Your task to perform on an android device: open sync settings in chrome Image 0: 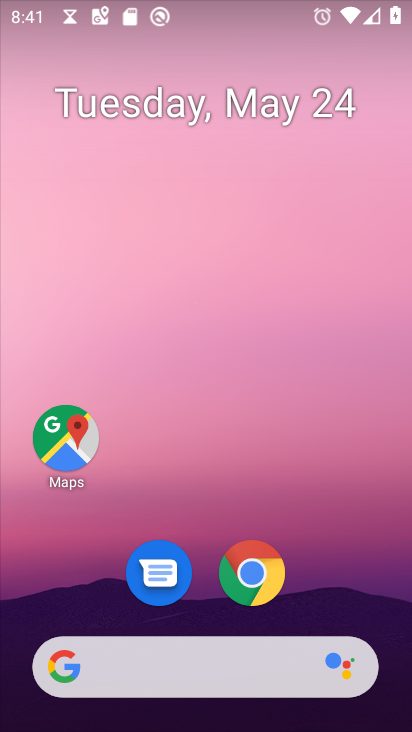
Step 0: drag from (292, 571) to (302, 369)
Your task to perform on an android device: open sync settings in chrome Image 1: 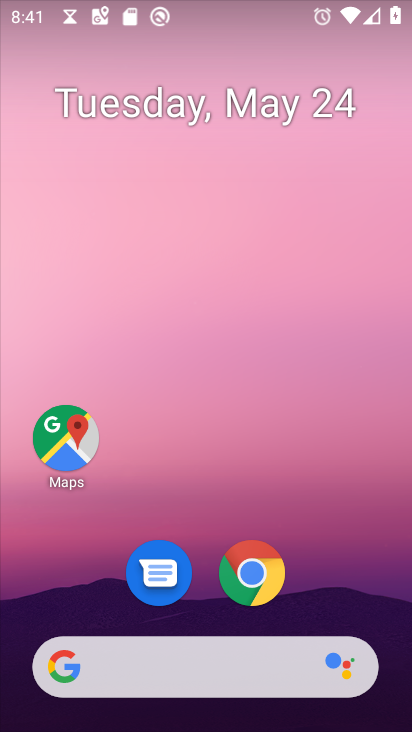
Step 1: drag from (356, 601) to (370, 516)
Your task to perform on an android device: open sync settings in chrome Image 2: 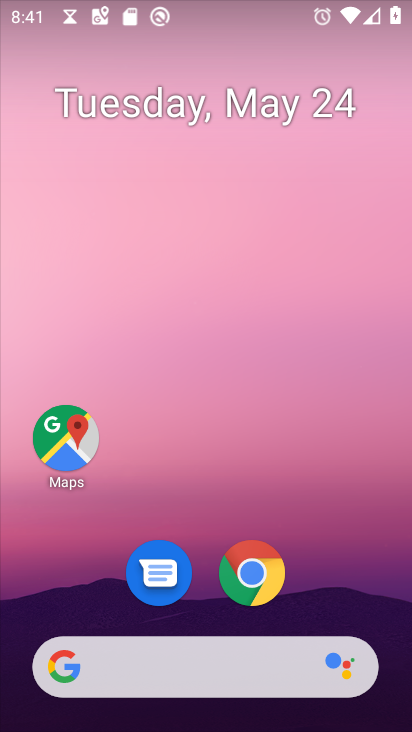
Step 2: drag from (318, 576) to (361, 122)
Your task to perform on an android device: open sync settings in chrome Image 3: 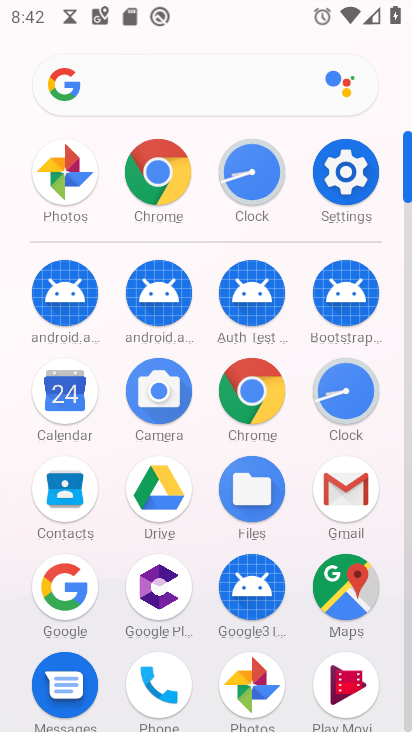
Step 3: click (171, 175)
Your task to perform on an android device: open sync settings in chrome Image 4: 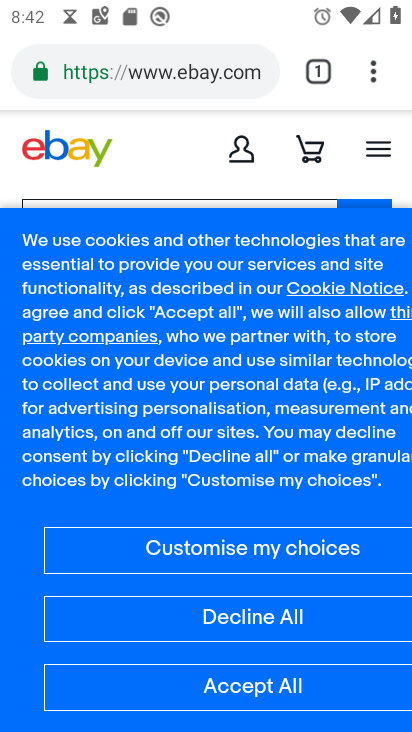
Step 4: drag from (369, 85) to (119, 567)
Your task to perform on an android device: open sync settings in chrome Image 5: 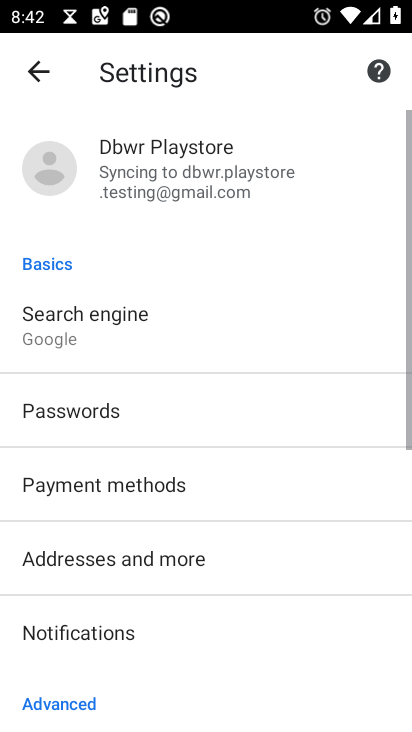
Step 5: drag from (161, 598) to (207, 244)
Your task to perform on an android device: open sync settings in chrome Image 6: 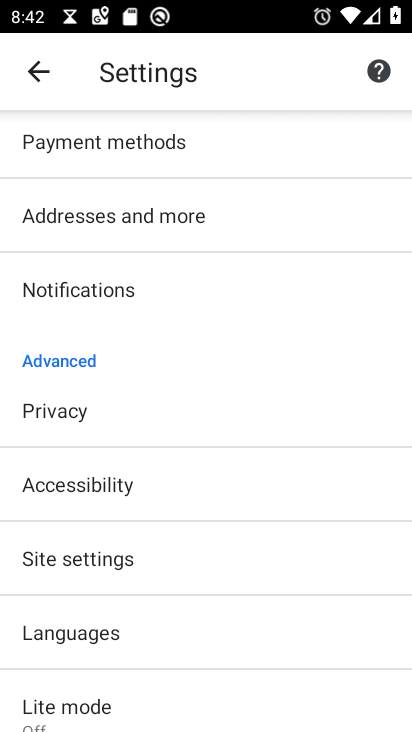
Step 6: click (67, 557)
Your task to perform on an android device: open sync settings in chrome Image 7: 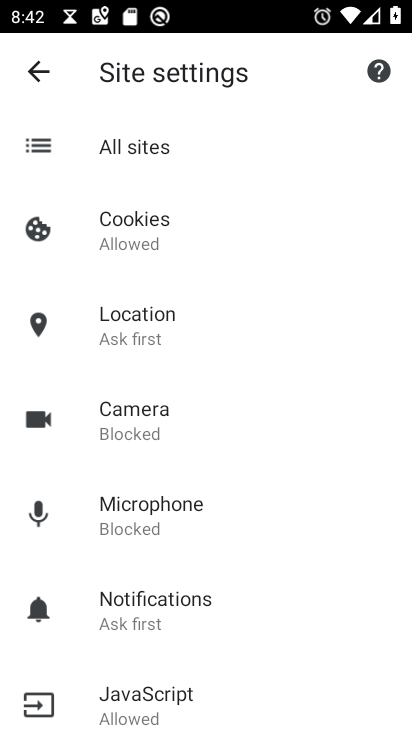
Step 7: drag from (113, 604) to (173, 242)
Your task to perform on an android device: open sync settings in chrome Image 8: 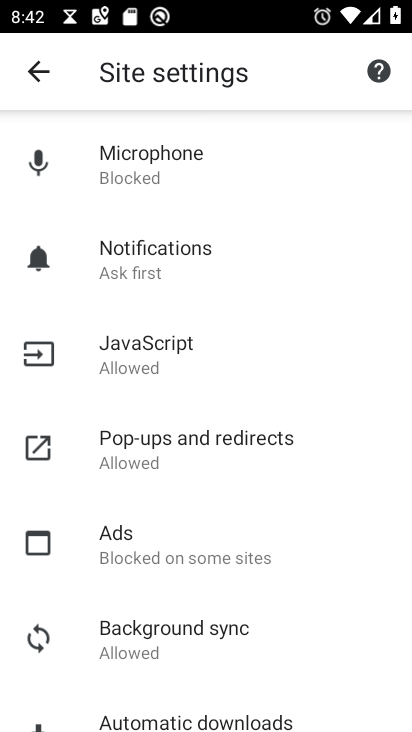
Step 8: click (188, 631)
Your task to perform on an android device: open sync settings in chrome Image 9: 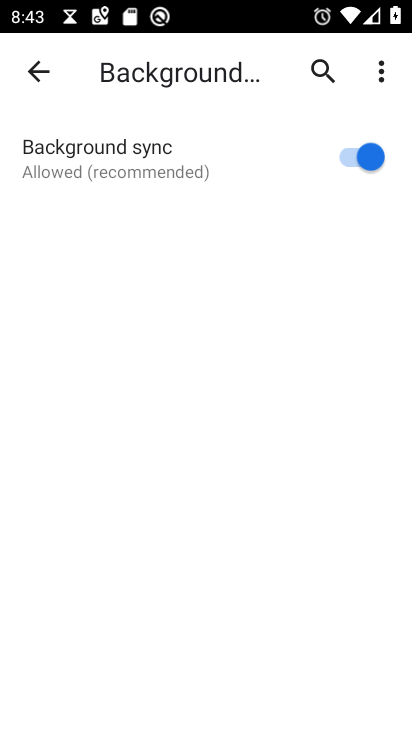
Step 9: task complete